Your task to perform on an android device: turn off notifications settings in the gmail app Image 0: 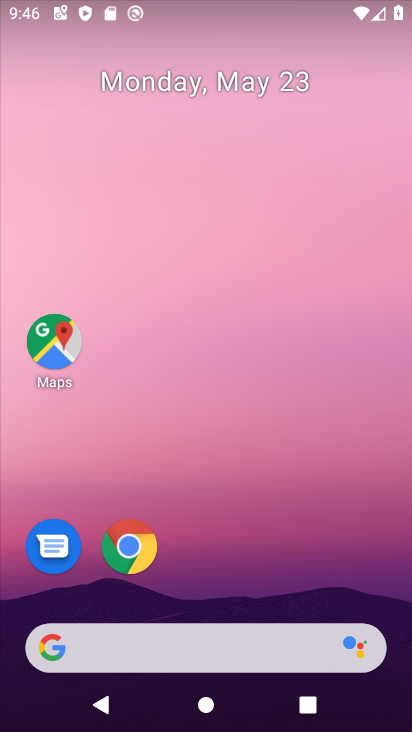
Step 0: drag from (377, 605) to (344, 125)
Your task to perform on an android device: turn off notifications settings in the gmail app Image 1: 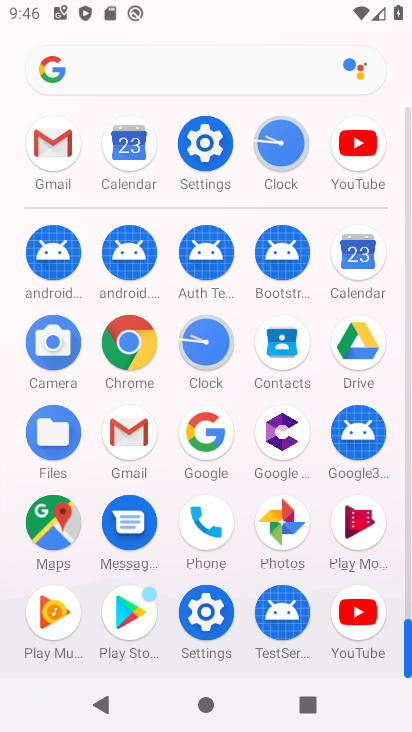
Step 1: click (123, 431)
Your task to perform on an android device: turn off notifications settings in the gmail app Image 2: 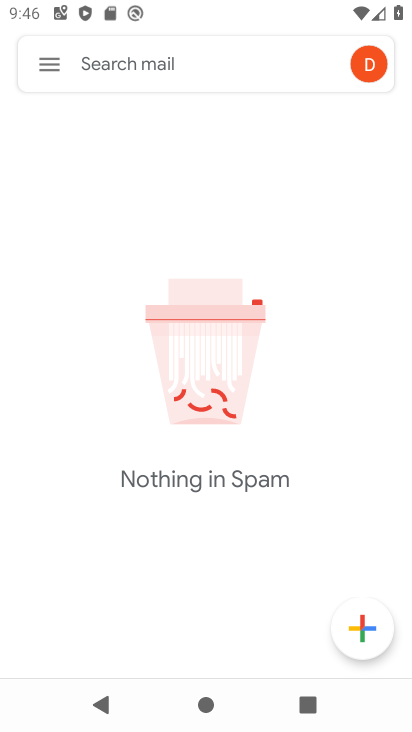
Step 2: click (49, 71)
Your task to perform on an android device: turn off notifications settings in the gmail app Image 3: 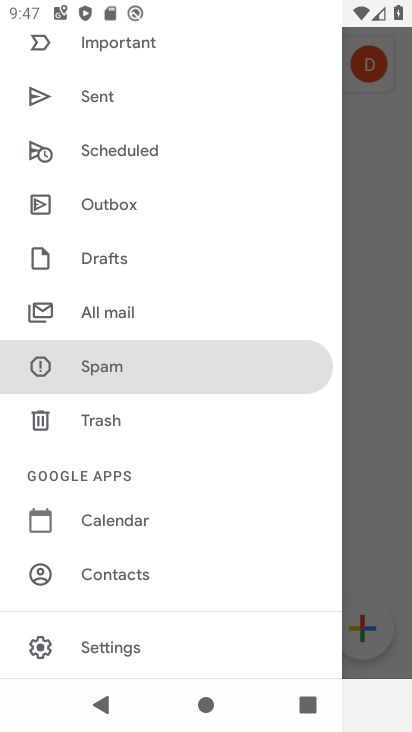
Step 3: drag from (269, 544) to (273, 128)
Your task to perform on an android device: turn off notifications settings in the gmail app Image 4: 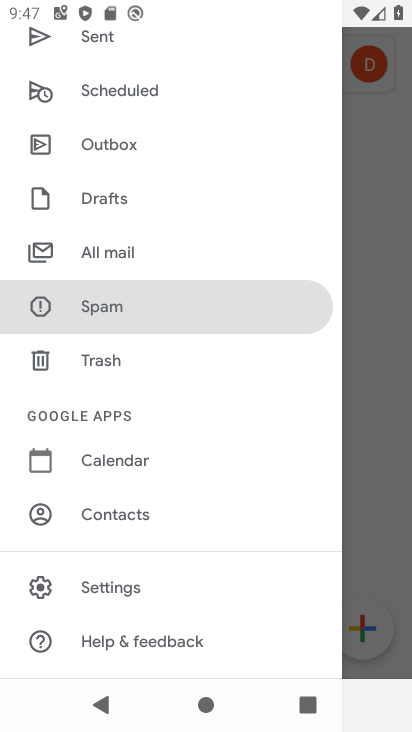
Step 4: click (117, 585)
Your task to perform on an android device: turn off notifications settings in the gmail app Image 5: 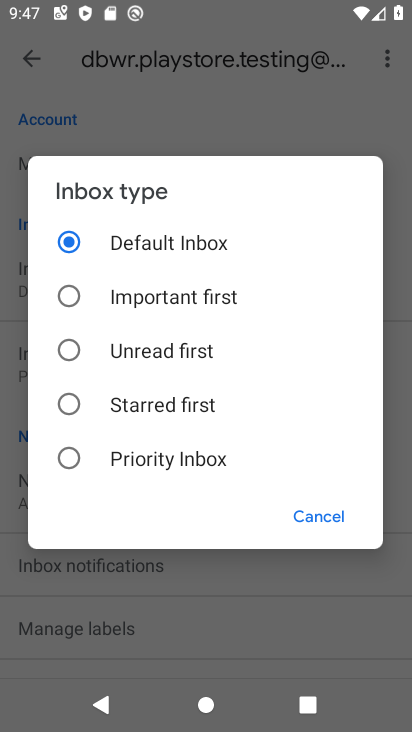
Step 5: click (310, 511)
Your task to perform on an android device: turn off notifications settings in the gmail app Image 6: 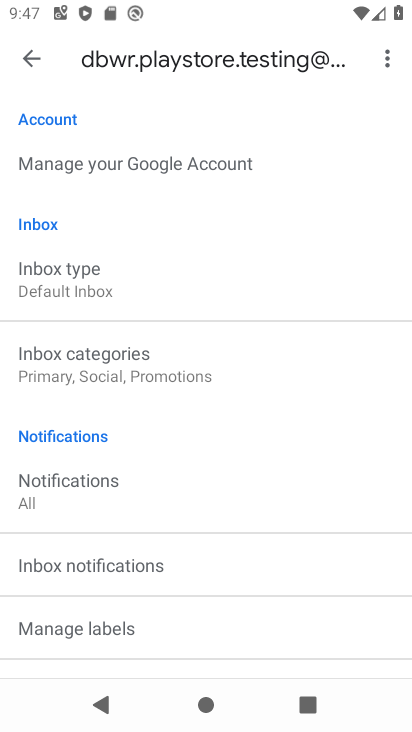
Step 6: drag from (137, 651) to (167, 200)
Your task to perform on an android device: turn off notifications settings in the gmail app Image 7: 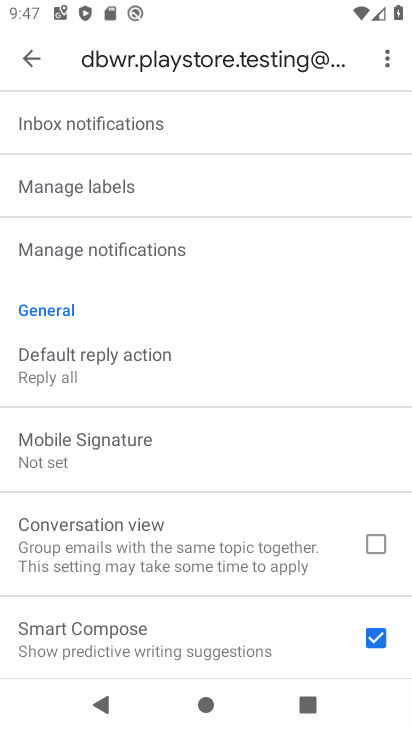
Step 7: click (77, 247)
Your task to perform on an android device: turn off notifications settings in the gmail app Image 8: 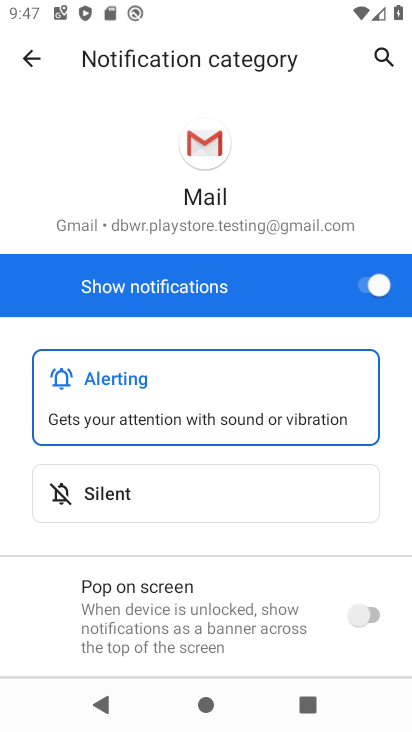
Step 8: click (357, 279)
Your task to perform on an android device: turn off notifications settings in the gmail app Image 9: 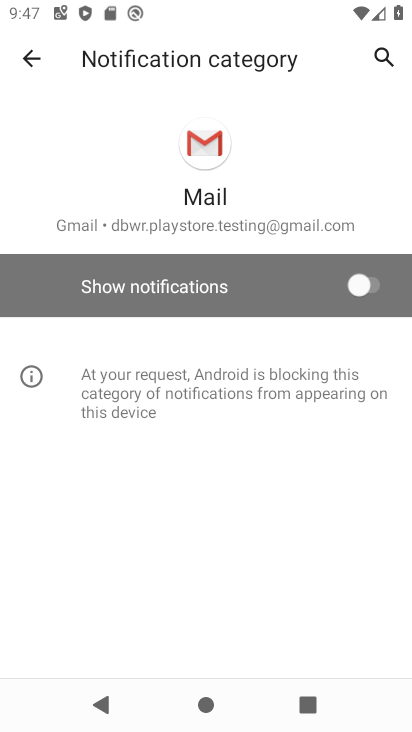
Step 9: task complete